Your task to perform on an android device: Go to Wikipedia Image 0: 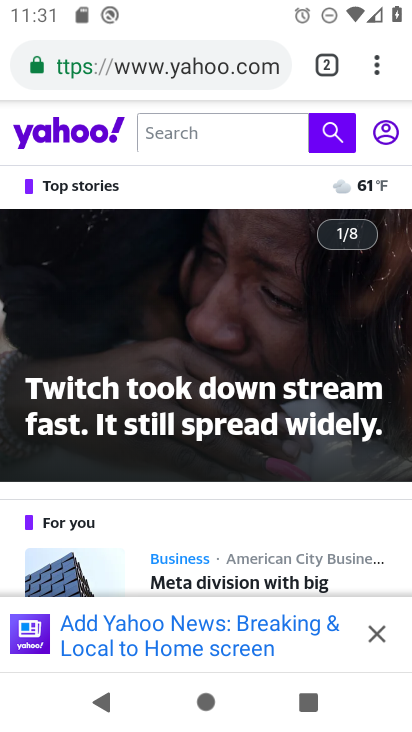
Step 0: click (107, 68)
Your task to perform on an android device: Go to Wikipedia Image 1: 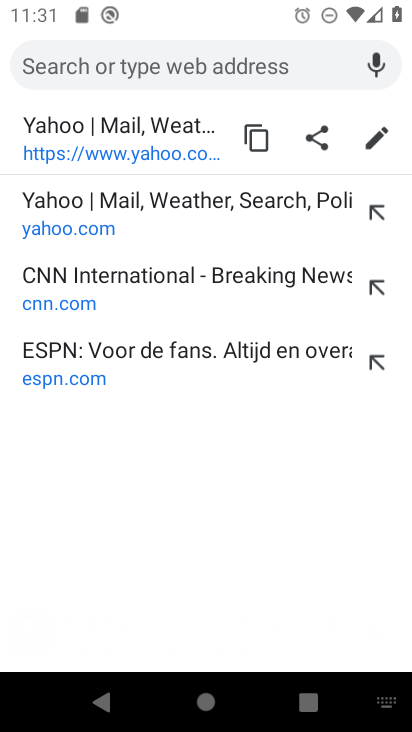
Step 1: type "wikipedia"
Your task to perform on an android device: Go to Wikipedia Image 2: 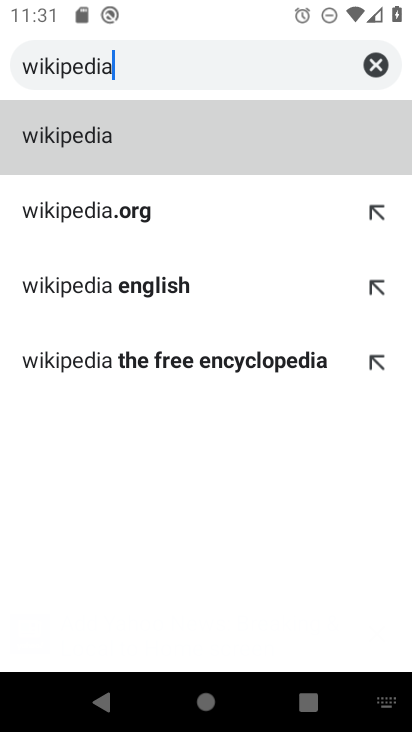
Step 2: click (95, 141)
Your task to perform on an android device: Go to Wikipedia Image 3: 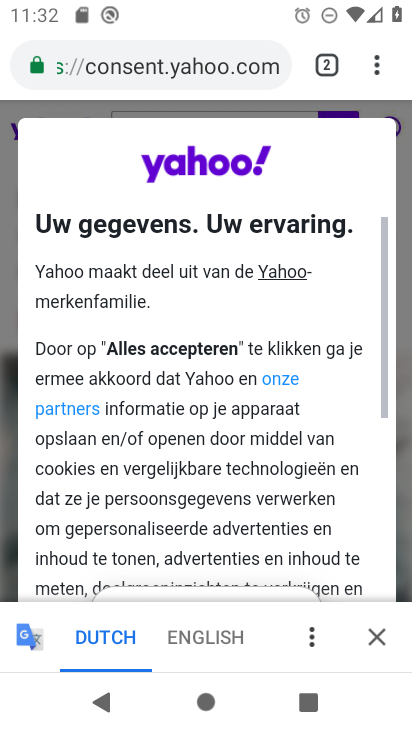
Step 3: press back button
Your task to perform on an android device: Go to Wikipedia Image 4: 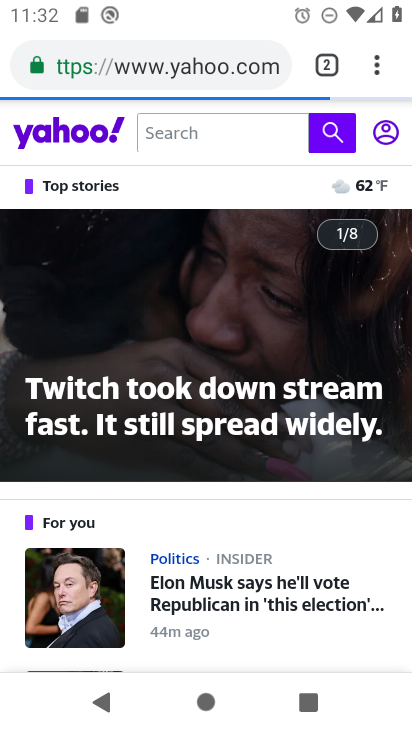
Step 4: click (176, 70)
Your task to perform on an android device: Go to Wikipedia Image 5: 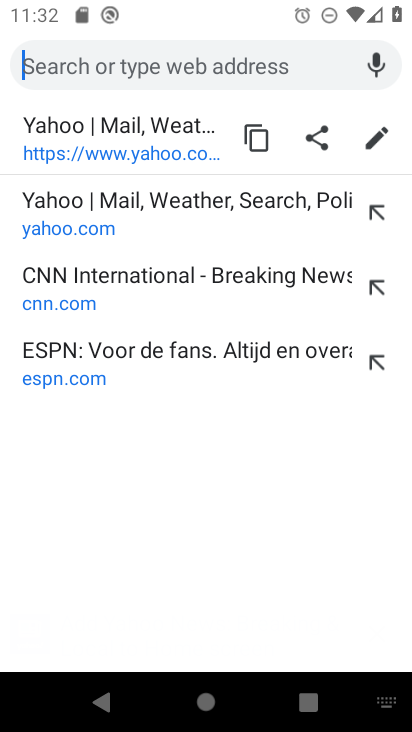
Step 5: type "wikipedia"
Your task to perform on an android device: Go to Wikipedia Image 6: 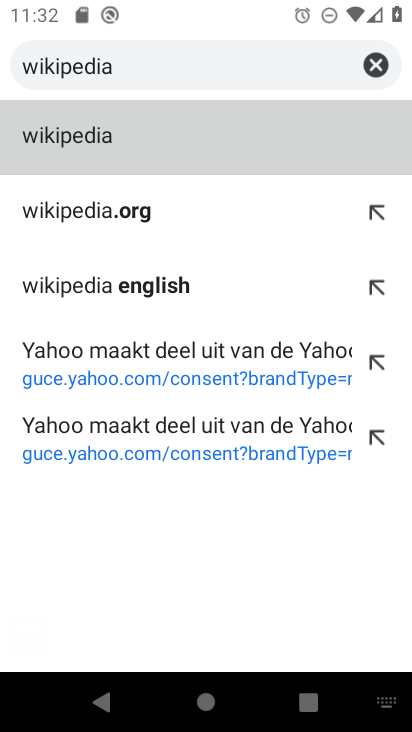
Step 6: click (153, 219)
Your task to perform on an android device: Go to Wikipedia Image 7: 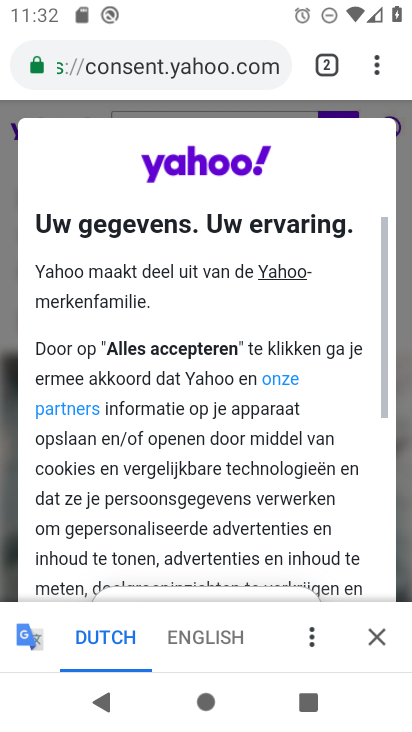
Step 7: drag from (305, 504) to (261, 115)
Your task to perform on an android device: Go to Wikipedia Image 8: 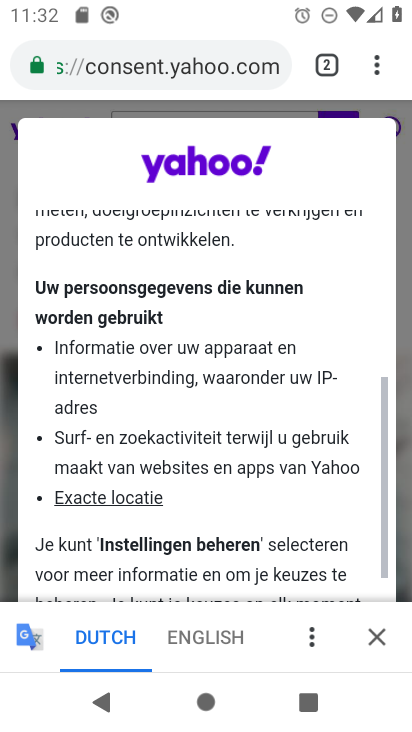
Step 8: drag from (262, 448) to (225, 72)
Your task to perform on an android device: Go to Wikipedia Image 9: 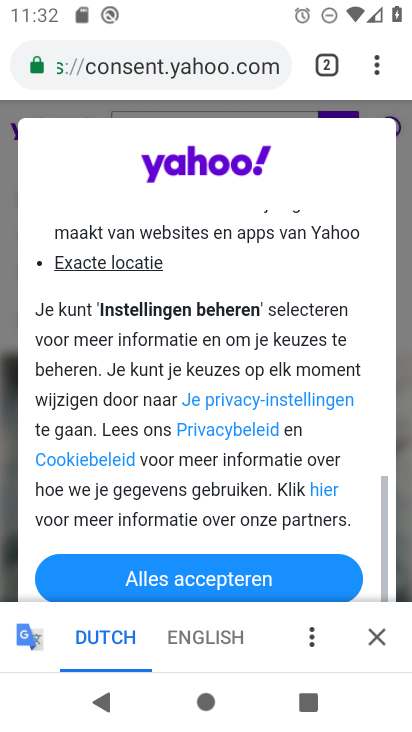
Step 9: click (258, 585)
Your task to perform on an android device: Go to Wikipedia Image 10: 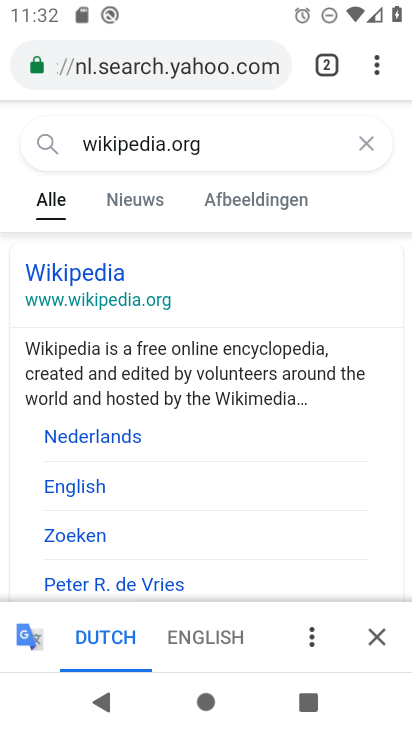
Step 10: click (80, 294)
Your task to perform on an android device: Go to Wikipedia Image 11: 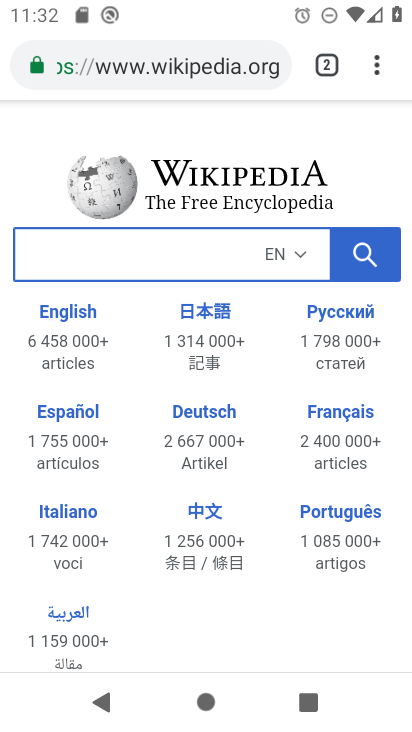
Step 11: task complete